Your task to perform on an android device: Clear all items from cart on amazon. Add beats solo 3 to the cart on amazon Image 0: 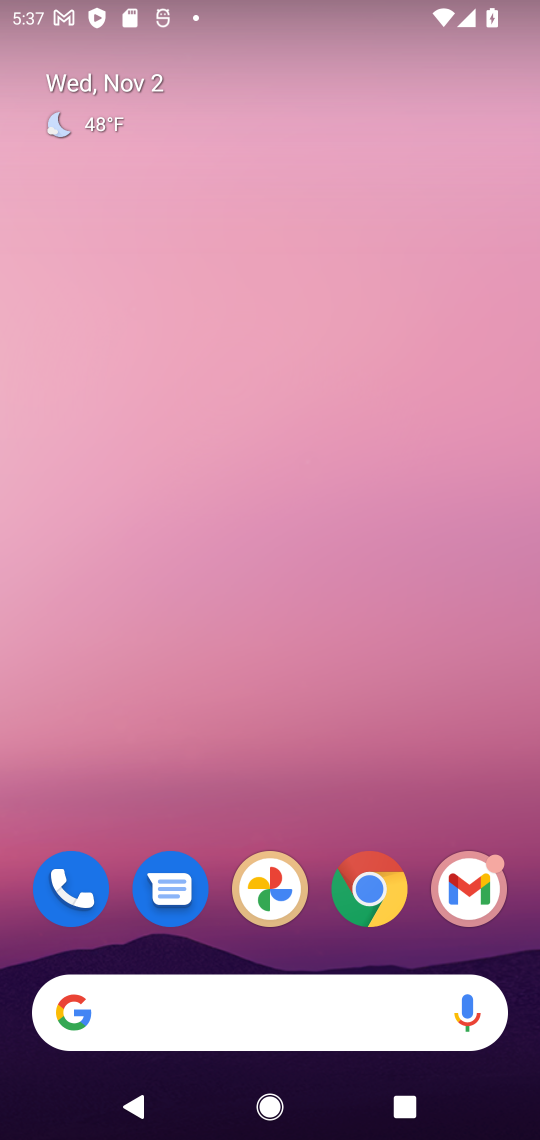
Step 0: click (371, 889)
Your task to perform on an android device: Clear all items from cart on amazon. Add beats solo 3 to the cart on amazon Image 1: 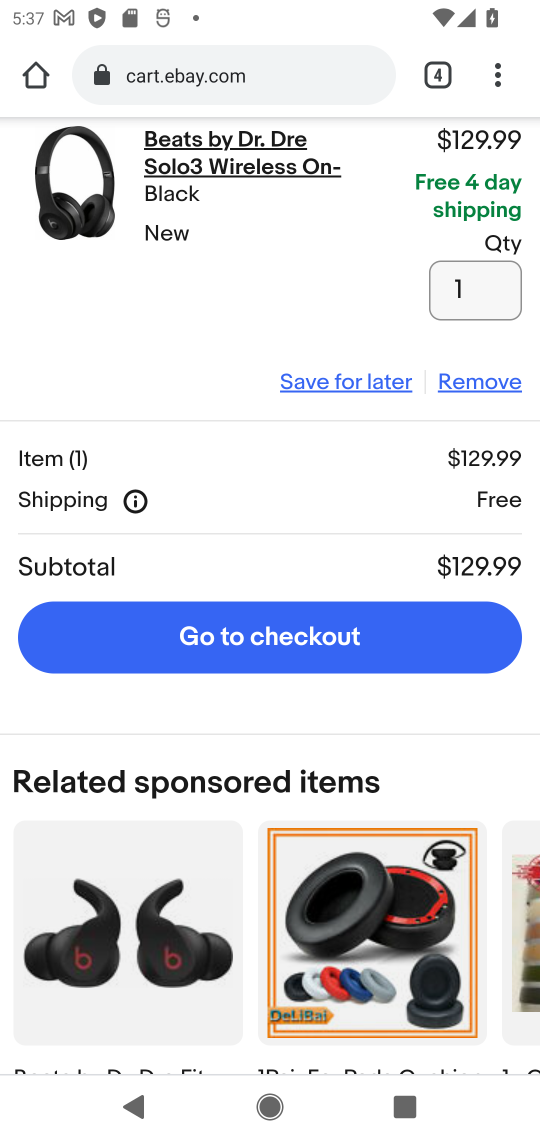
Step 1: click (354, 69)
Your task to perform on an android device: Clear all items from cart on amazon. Add beats solo 3 to the cart on amazon Image 2: 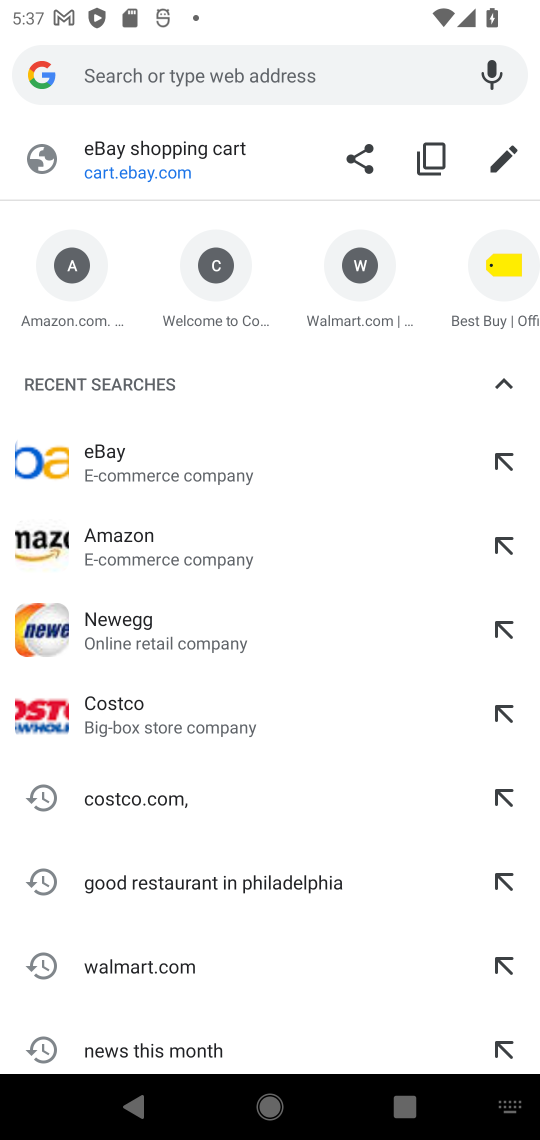
Step 2: click (125, 539)
Your task to perform on an android device: Clear all items from cart on amazon. Add beats solo 3 to the cart on amazon Image 3: 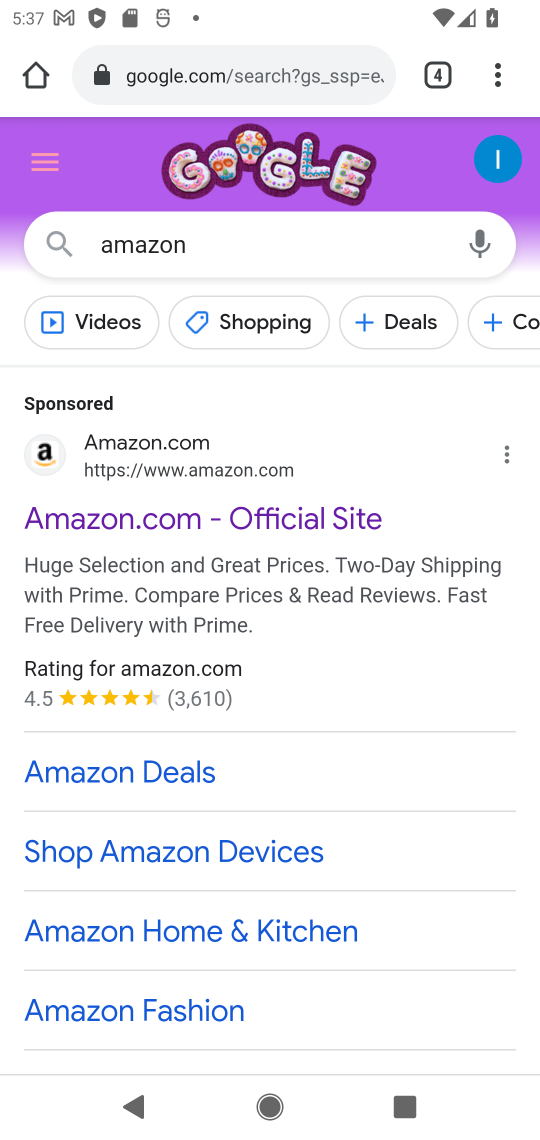
Step 3: click (197, 519)
Your task to perform on an android device: Clear all items from cart on amazon. Add beats solo 3 to the cart on amazon Image 4: 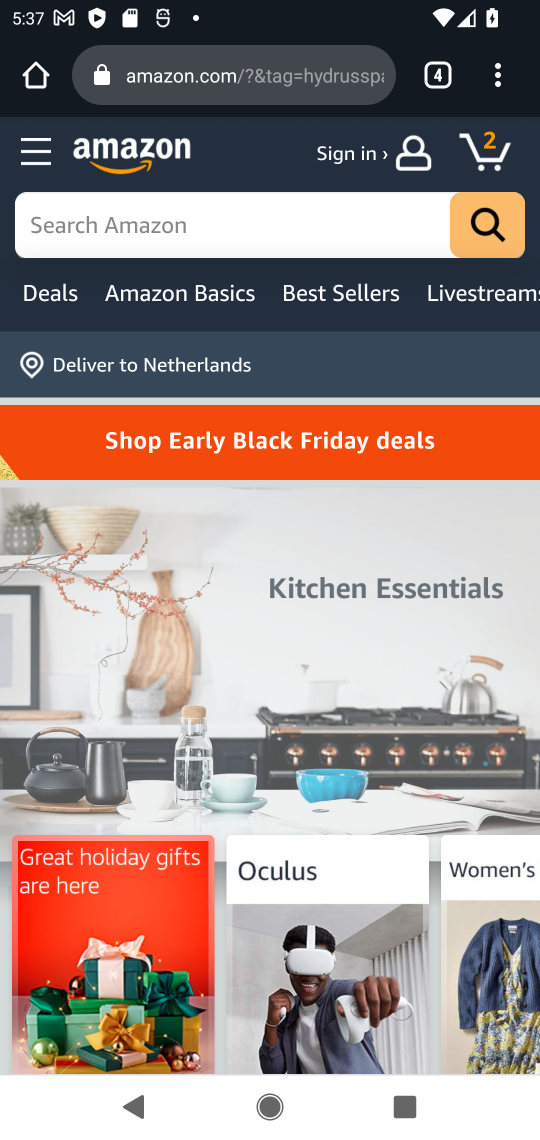
Step 4: click (511, 145)
Your task to perform on an android device: Clear all items from cart on amazon. Add beats solo 3 to the cart on amazon Image 5: 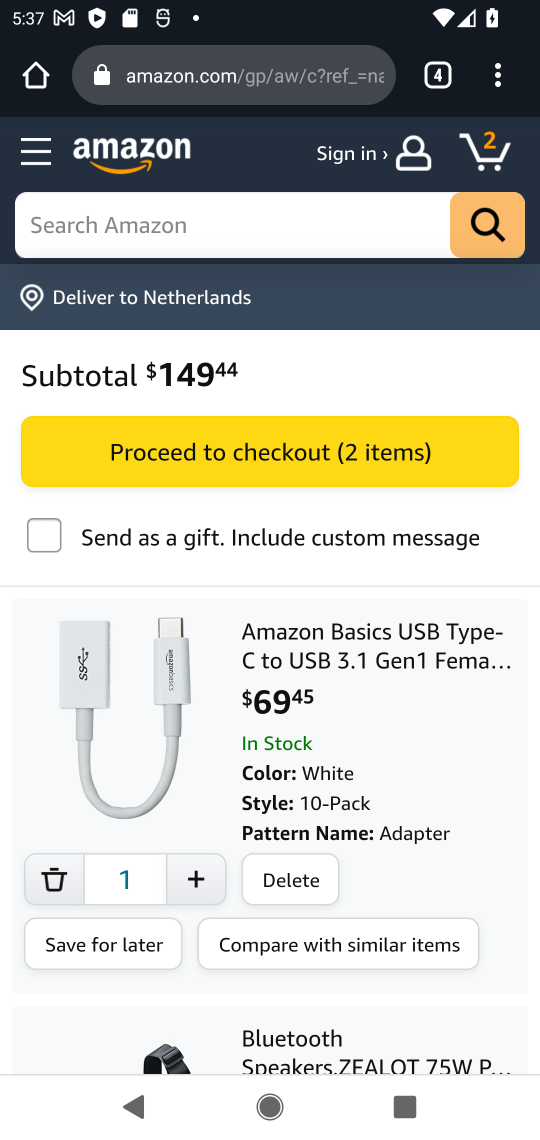
Step 5: drag from (226, 857) to (394, 485)
Your task to perform on an android device: Clear all items from cart on amazon. Add beats solo 3 to the cart on amazon Image 6: 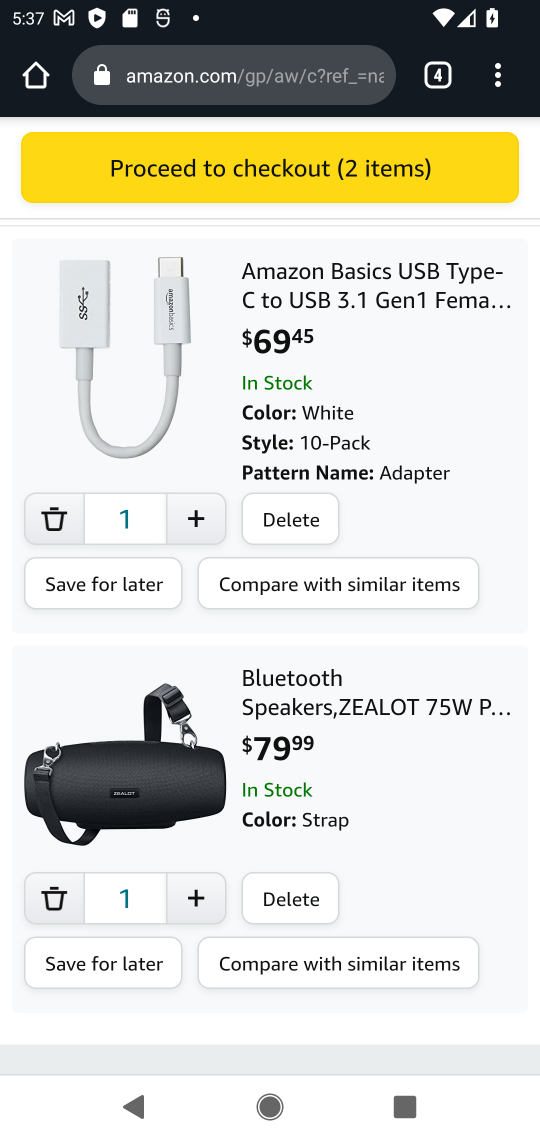
Step 6: click (299, 523)
Your task to perform on an android device: Clear all items from cart on amazon. Add beats solo 3 to the cart on amazon Image 7: 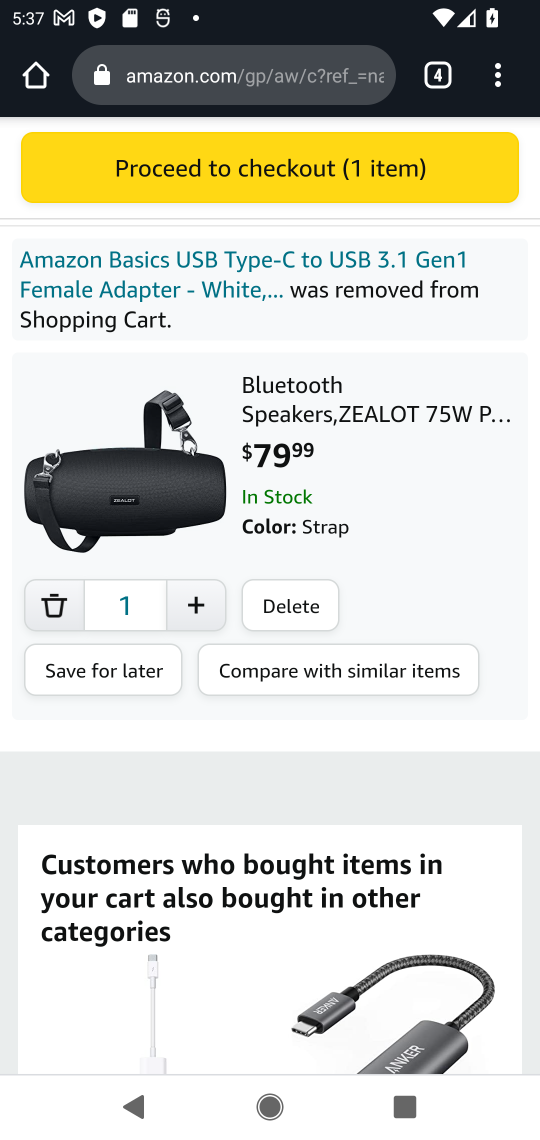
Step 7: click (297, 590)
Your task to perform on an android device: Clear all items from cart on amazon. Add beats solo 3 to the cart on amazon Image 8: 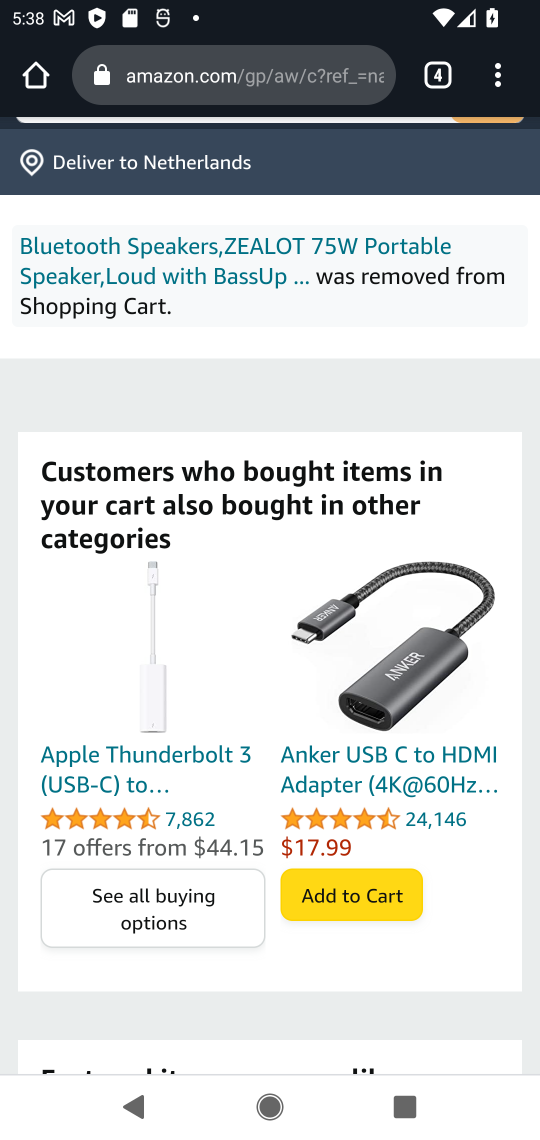
Step 8: drag from (431, 198) to (337, 555)
Your task to perform on an android device: Clear all items from cart on amazon. Add beats solo 3 to the cart on amazon Image 9: 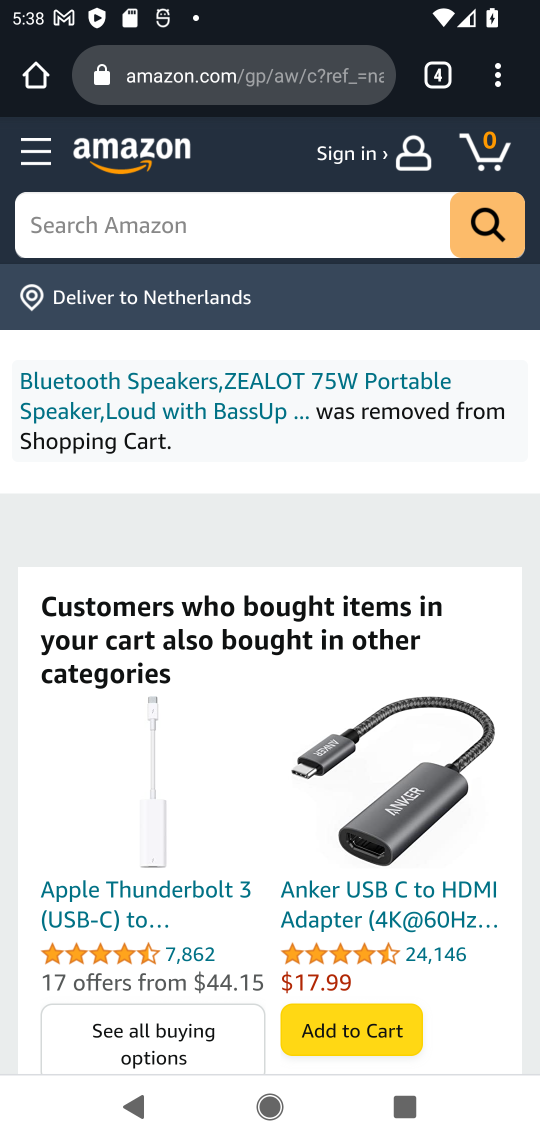
Step 9: click (316, 213)
Your task to perform on an android device: Clear all items from cart on amazon. Add beats solo 3 to the cart on amazon Image 10: 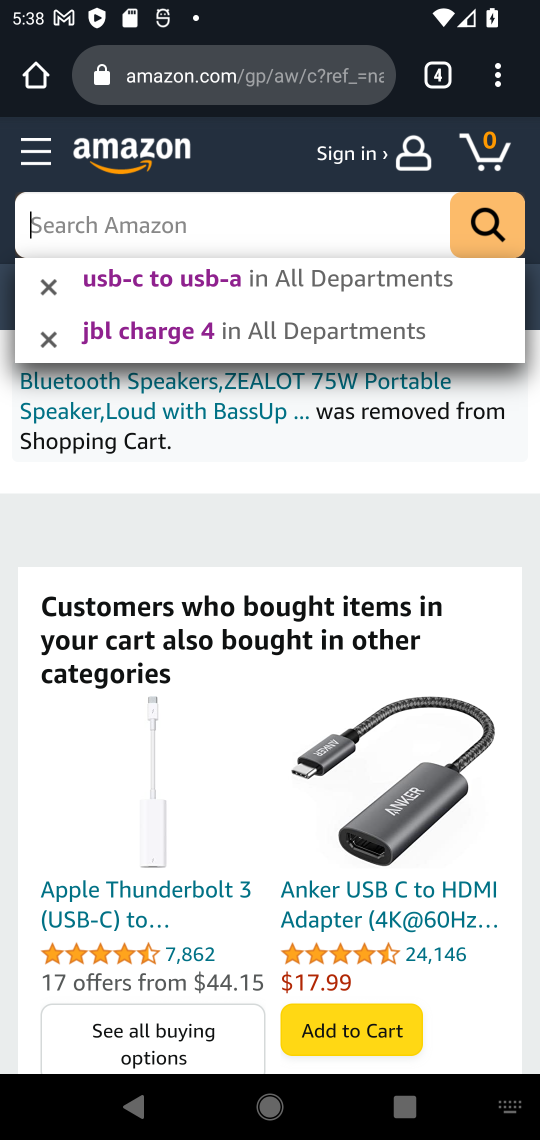
Step 10: type "beats solo 3"
Your task to perform on an android device: Clear all items from cart on amazon. Add beats solo 3 to the cart on amazon Image 11: 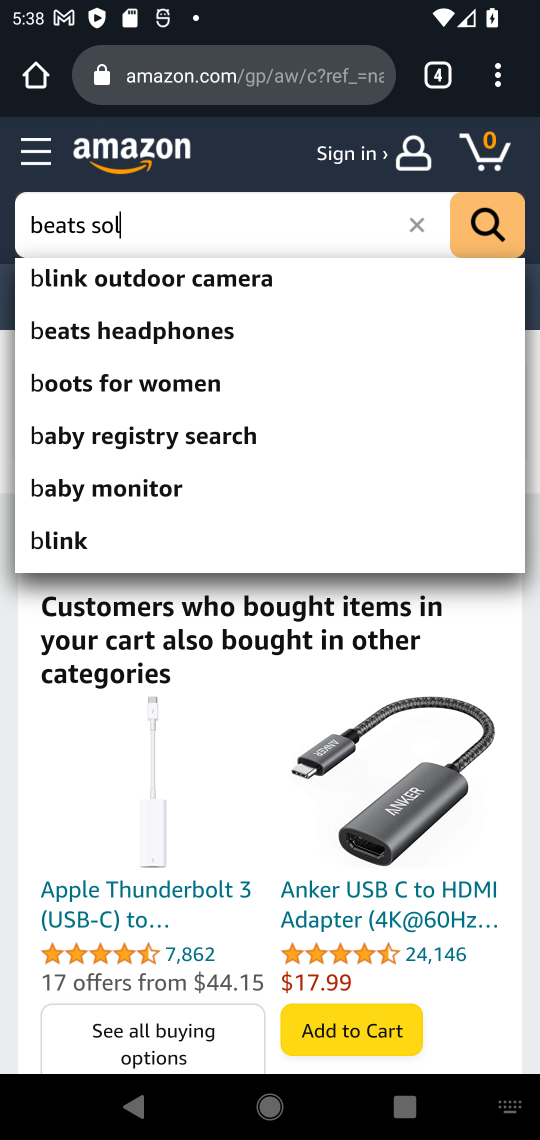
Step 11: press enter
Your task to perform on an android device: Clear all items from cart on amazon. Add beats solo 3 to the cart on amazon Image 12: 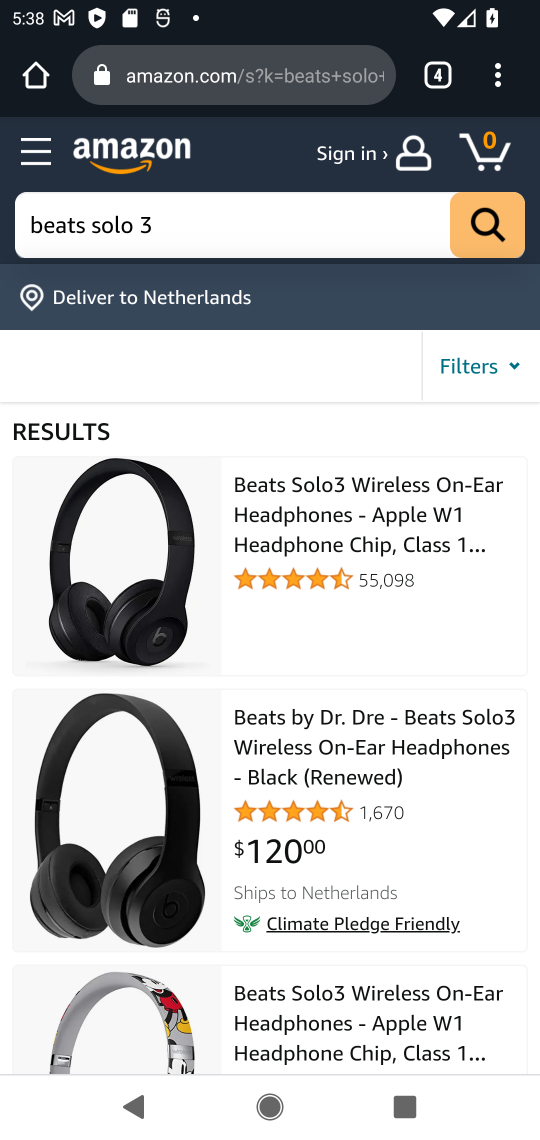
Step 12: click (336, 496)
Your task to perform on an android device: Clear all items from cart on amazon. Add beats solo 3 to the cart on amazon Image 13: 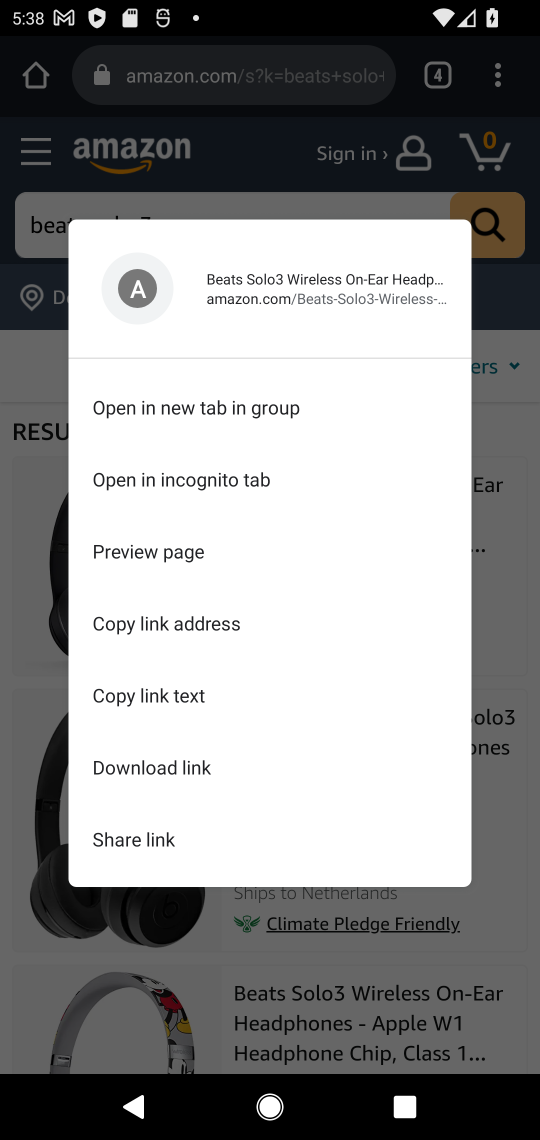
Step 13: click (512, 506)
Your task to perform on an android device: Clear all items from cart on amazon. Add beats solo 3 to the cart on amazon Image 14: 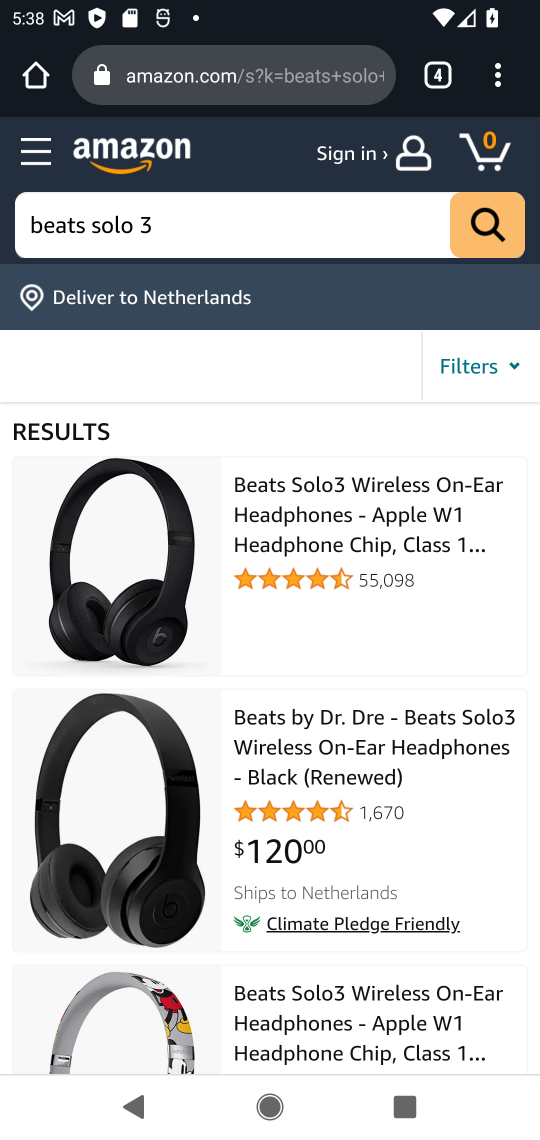
Step 14: click (154, 547)
Your task to perform on an android device: Clear all items from cart on amazon. Add beats solo 3 to the cart on amazon Image 15: 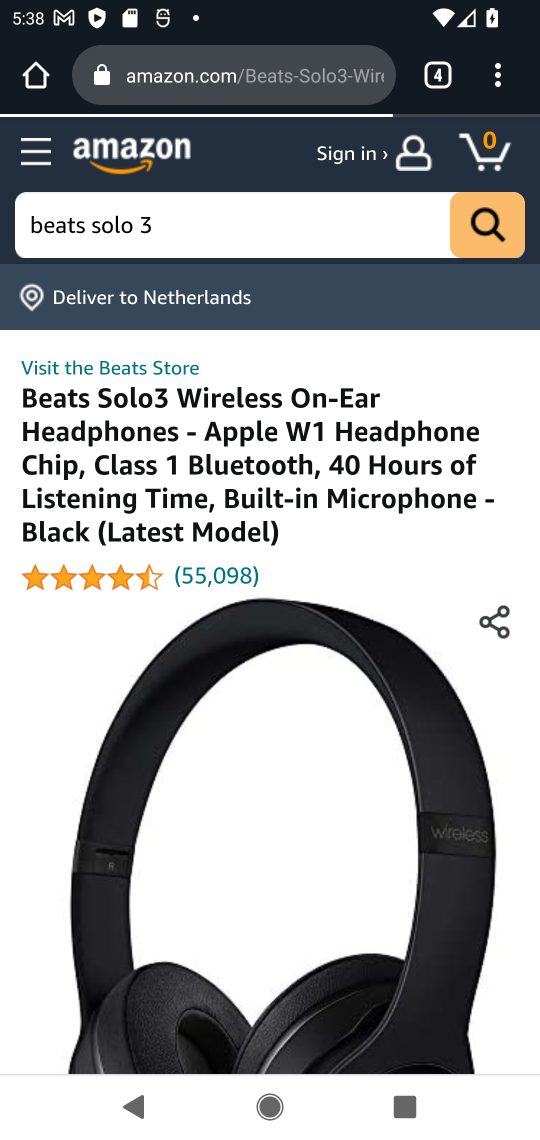
Step 15: drag from (267, 816) to (533, 347)
Your task to perform on an android device: Clear all items from cart on amazon. Add beats solo 3 to the cart on amazon Image 16: 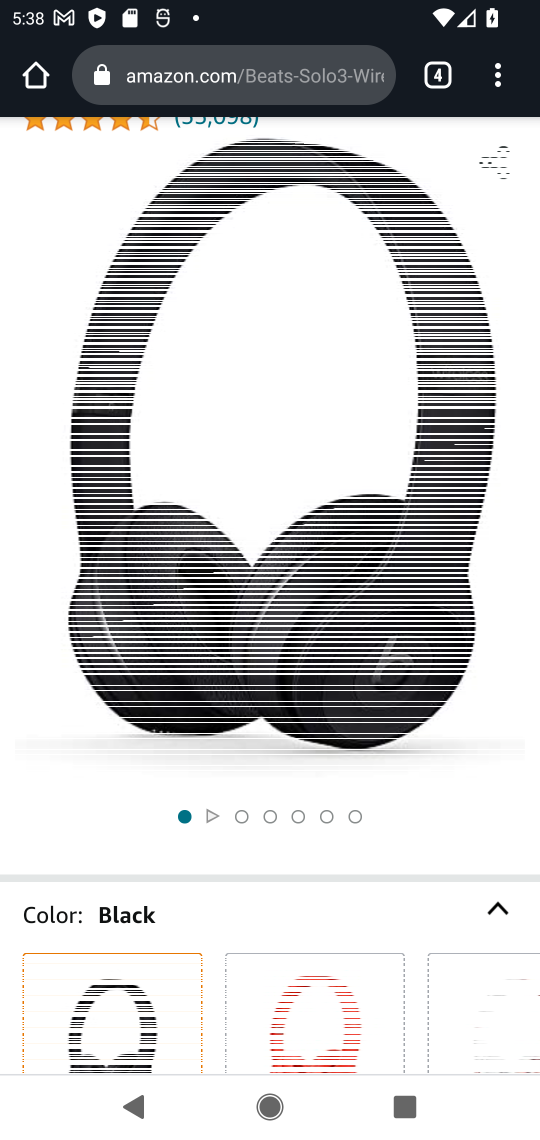
Step 16: drag from (288, 840) to (538, 285)
Your task to perform on an android device: Clear all items from cart on amazon. Add beats solo 3 to the cart on amazon Image 17: 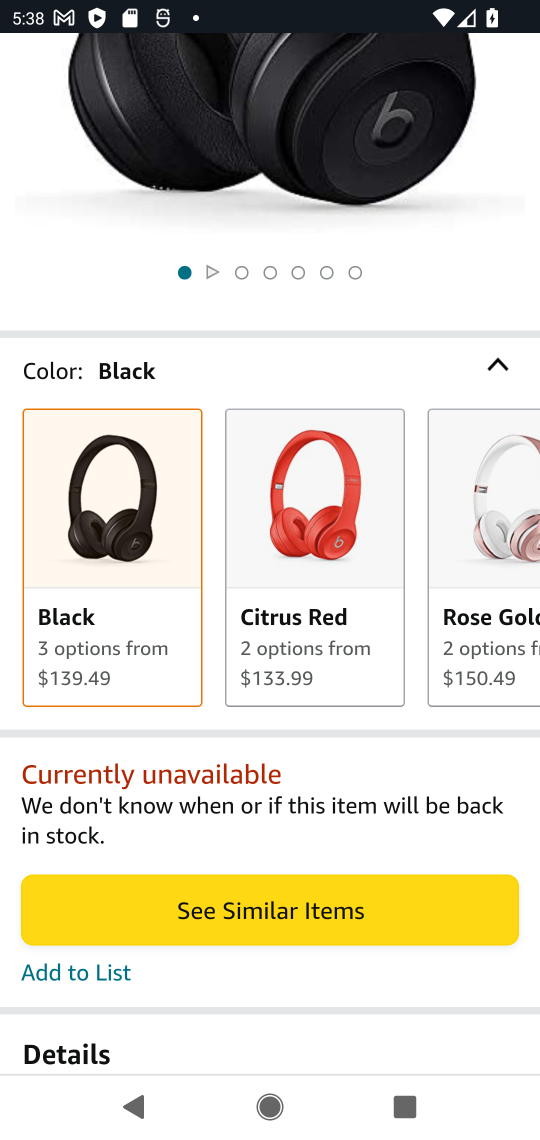
Step 17: drag from (180, 843) to (385, 326)
Your task to perform on an android device: Clear all items from cart on amazon. Add beats solo 3 to the cart on amazon Image 18: 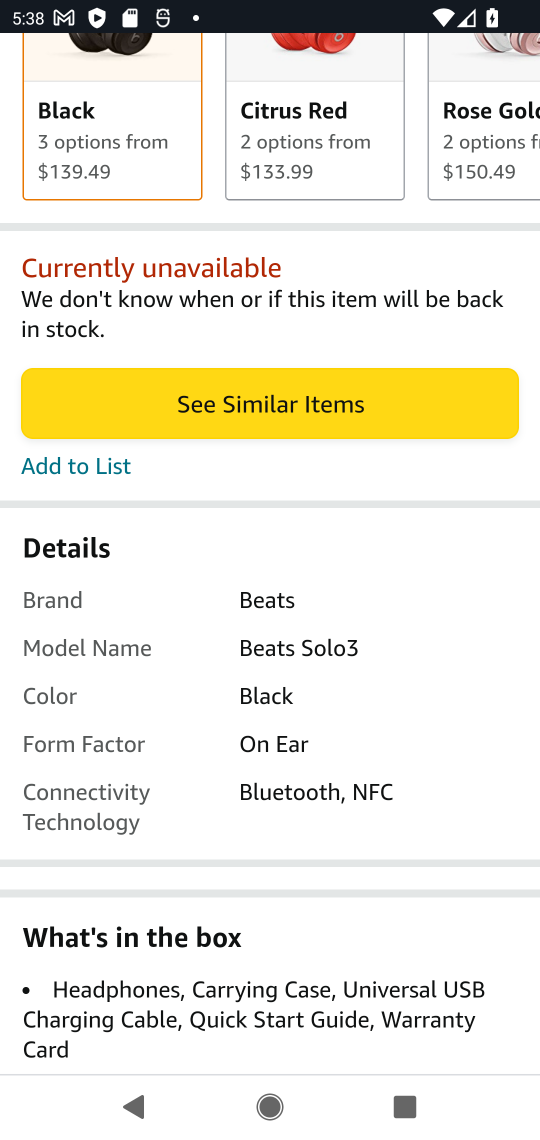
Step 18: drag from (258, 964) to (473, 396)
Your task to perform on an android device: Clear all items from cart on amazon. Add beats solo 3 to the cart on amazon Image 19: 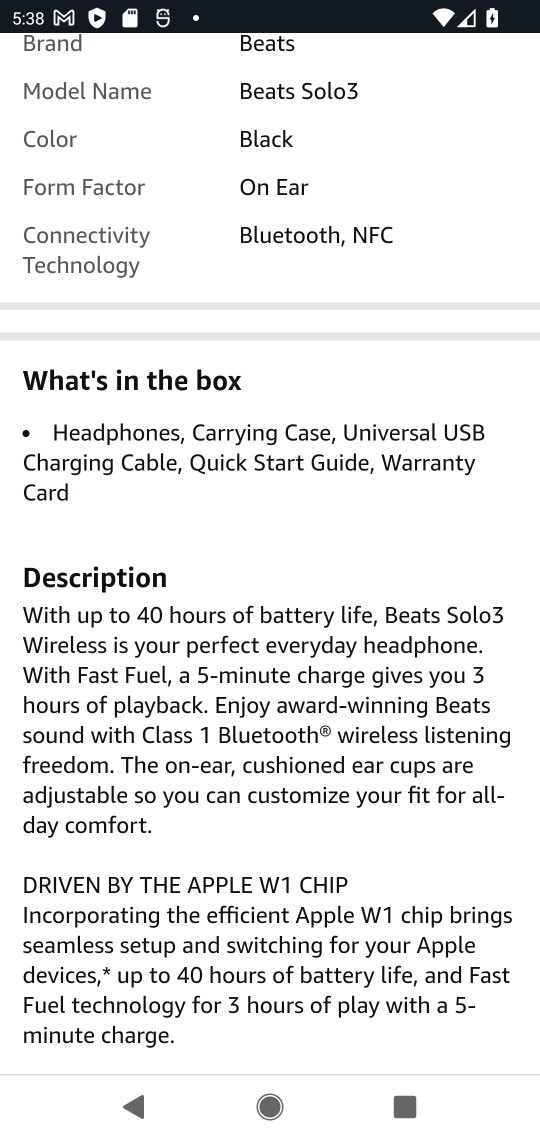
Step 19: drag from (187, 866) to (529, 143)
Your task to perform on an android device: Clear all items from cart on amazon. Add beats solo 3 to the cart on amazon Image 20: 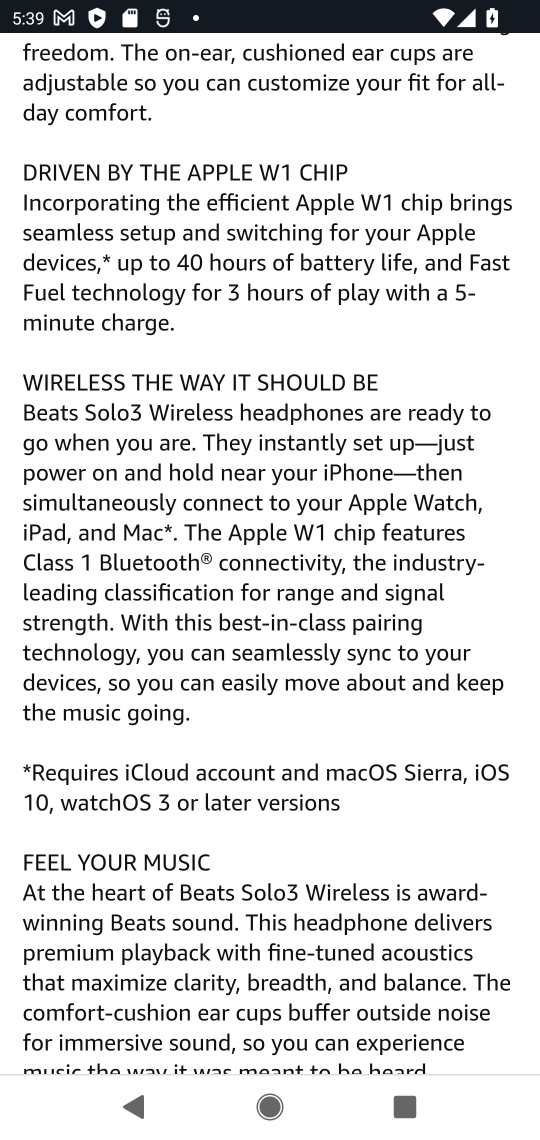
Step 20: drag from (423, 410) to (533, 152)
Your task to perform on an android device: Clear all items from cart on amazon. Add beats solo 3 to the cart on amazon Image 21: 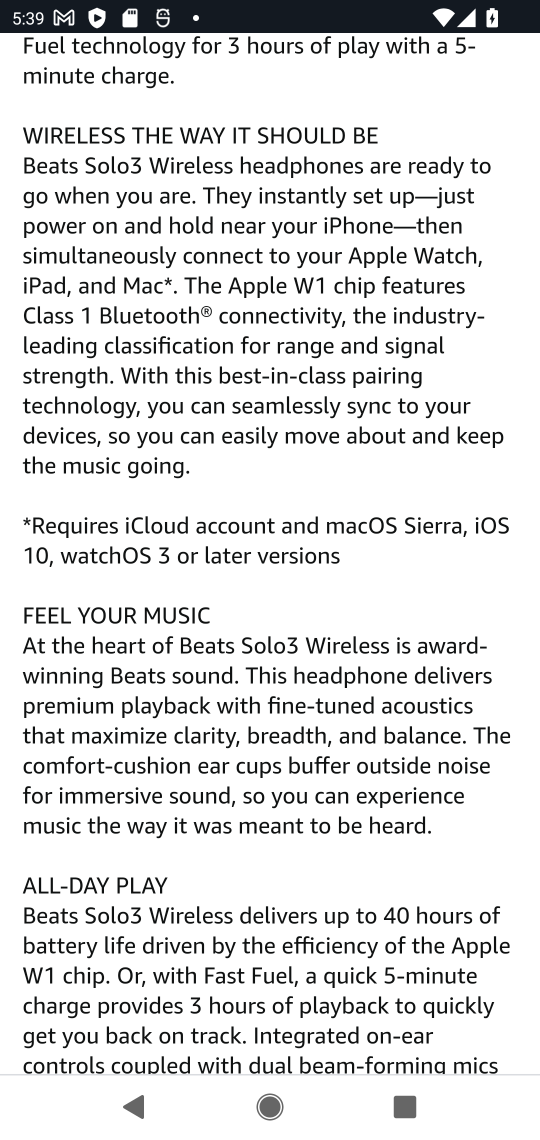
Step 21: drag from (426, 159) to (170, 979)
Your task to perform on an android device: Clear all items from cart on amazon. Add beats solo 3 to the cart on amazon Image 22: 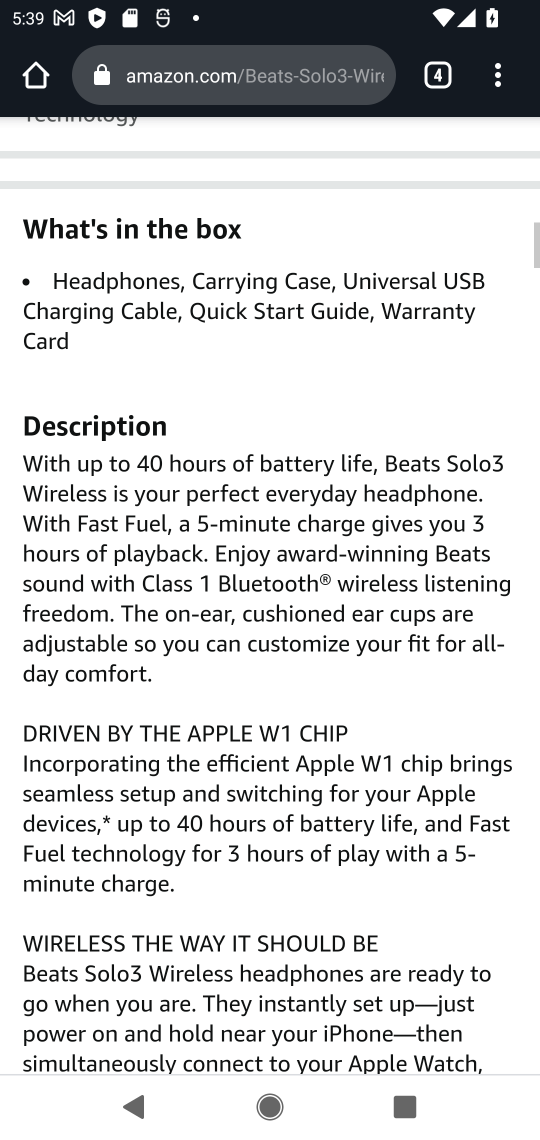
Step 22: drag from (317, 303) to (98, 931)
Your task to perform on an android device: Clear all items from cart on amazon. Add beats solo 3 to the cart on amazon Image 23: 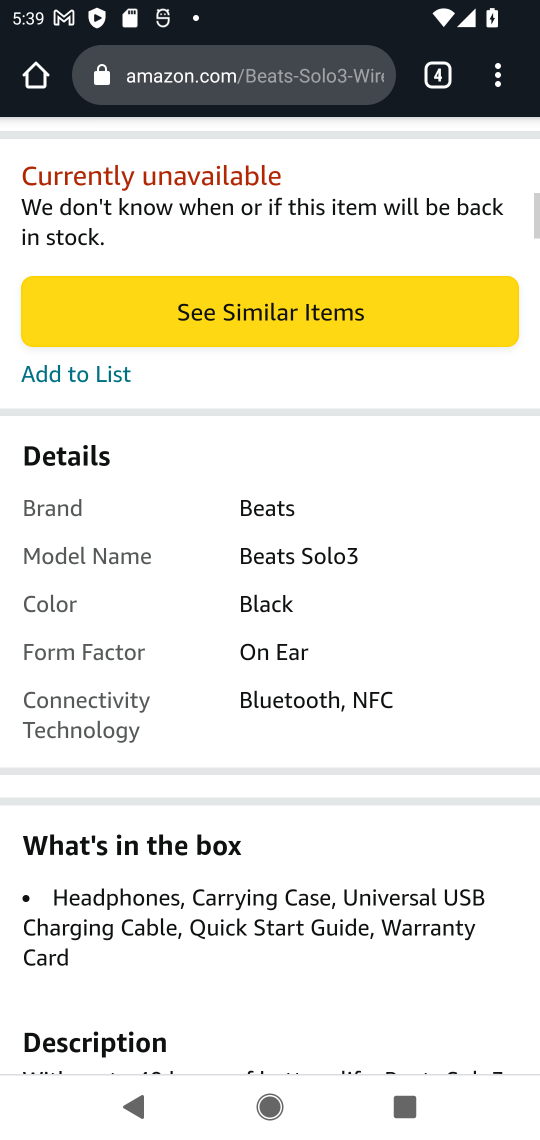
Step 23: drag from (349, 315) to (221, 767)
Your task to perform on an android device: Clear all items from cart on amazon. Add beats solo 3 to the cart on amazon Image 24: 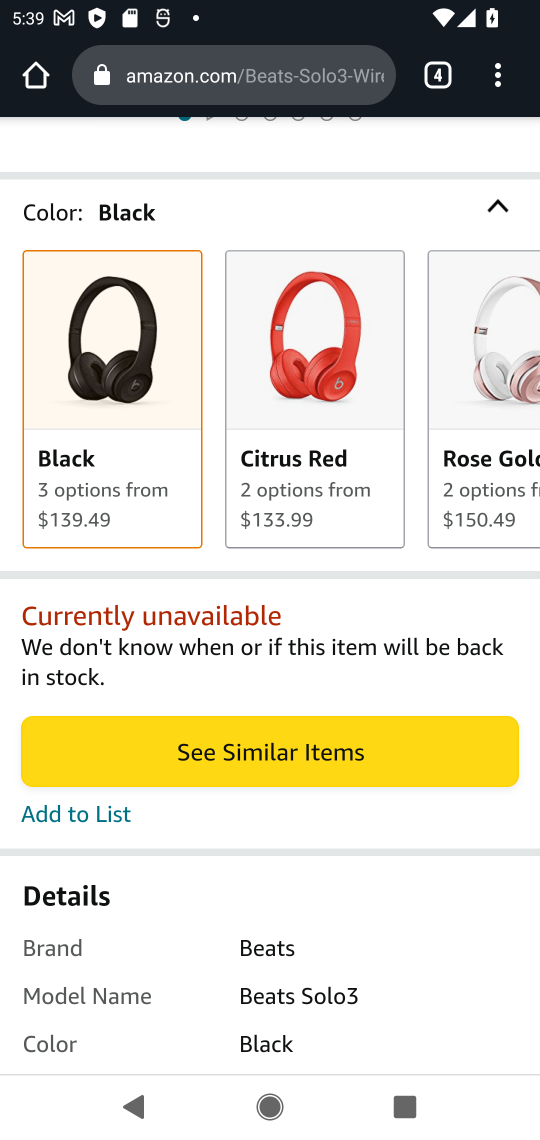
Step 24: drag from (340, 233) to (0, 1127)
Your task to perform on an android device: Clear all items from cart on amazon. Add beats solo 3 to the cart on amazon Image 25: 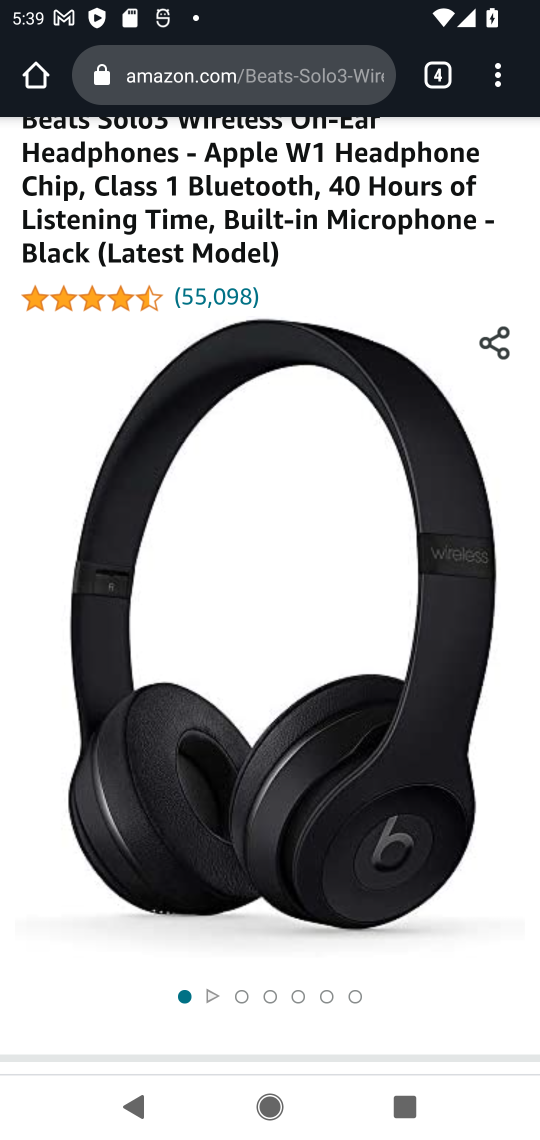
Step 25: press back button
Your task to perform on an android device: Clear all items from cart on amazon. Add beats solo 3 to the cart on amazon Image 26: 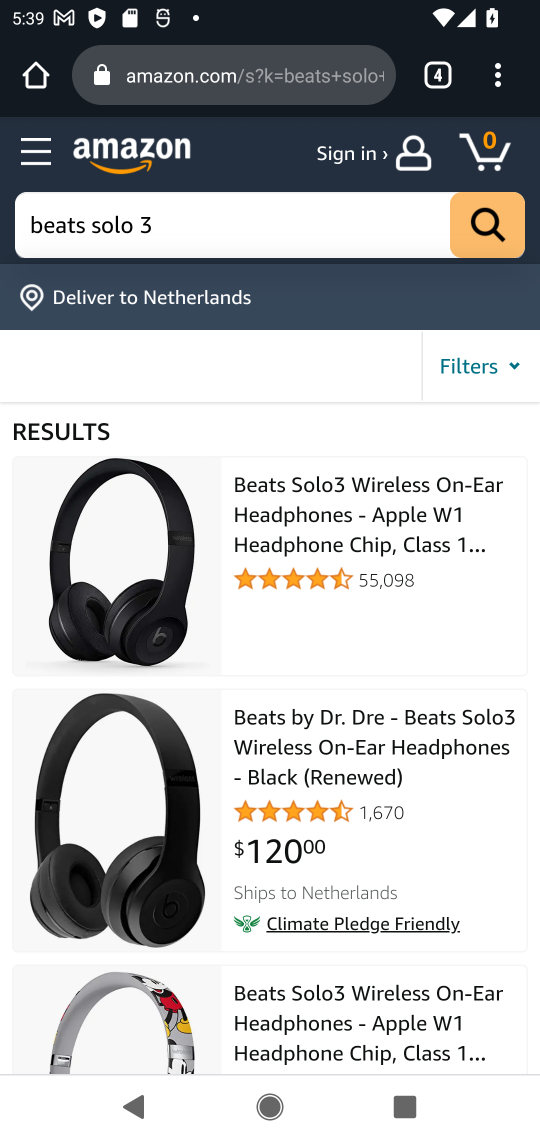
Step 26: click (312, 787)
Your task to perform on an android device: Clear all items from cart on amazon. Add beats solo 3 to the cart on amazon Image 27: 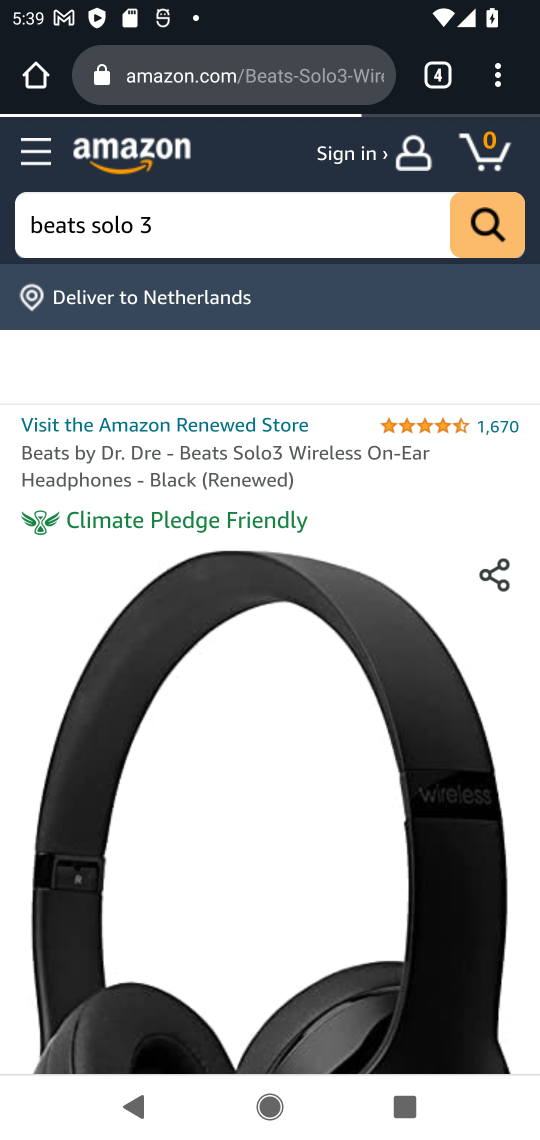
Step 27: drag from (239, 904) to (458, 328)
Your task to perform on an android device: Clear all items from cart on amazon. Add beats solo 3 to the cart on amazon Image 28: 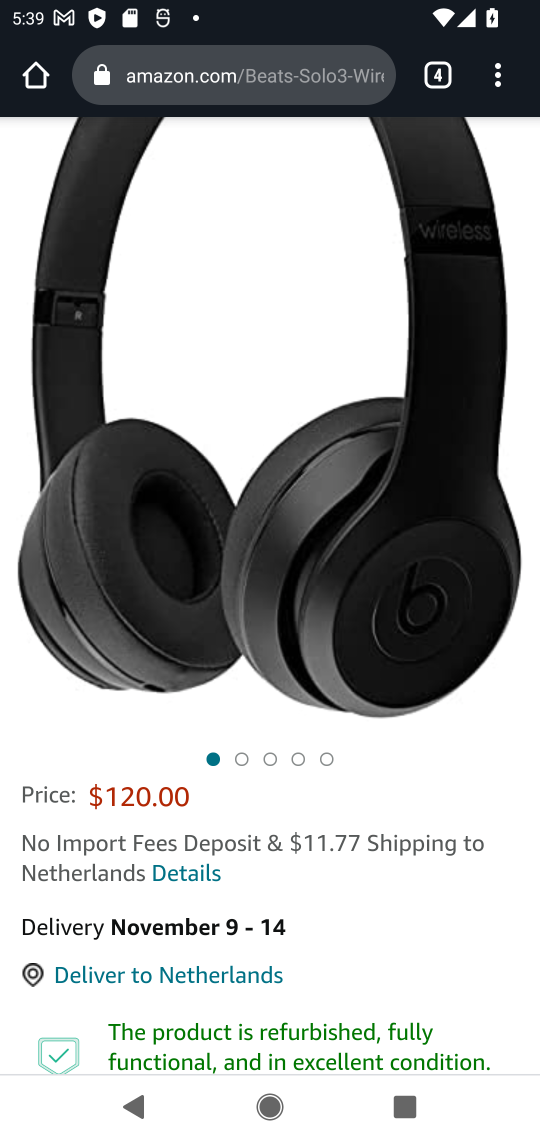
Step 28: drag from (298, 986) to (486, 458)
Your task to perform on an android device: Clear all items from cart on amazon. Add beats solo 3 to the cart on amazon Image 29: 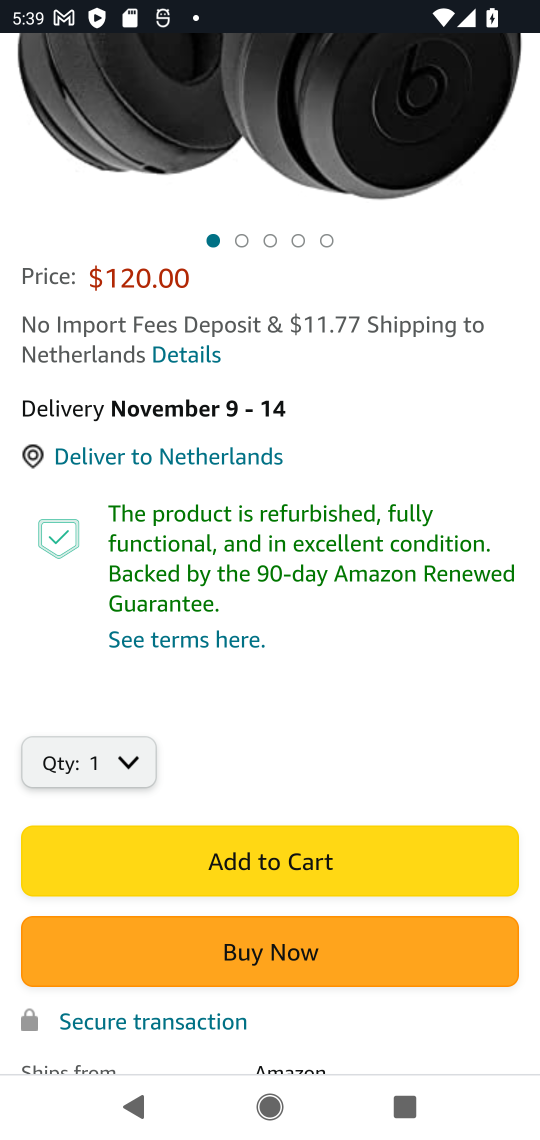
Step 29: click (283, 853)
Your task to perform on an android device: Clear all items from cart on amazon. Add beats solo 3 to the cart on amazon Image 30: 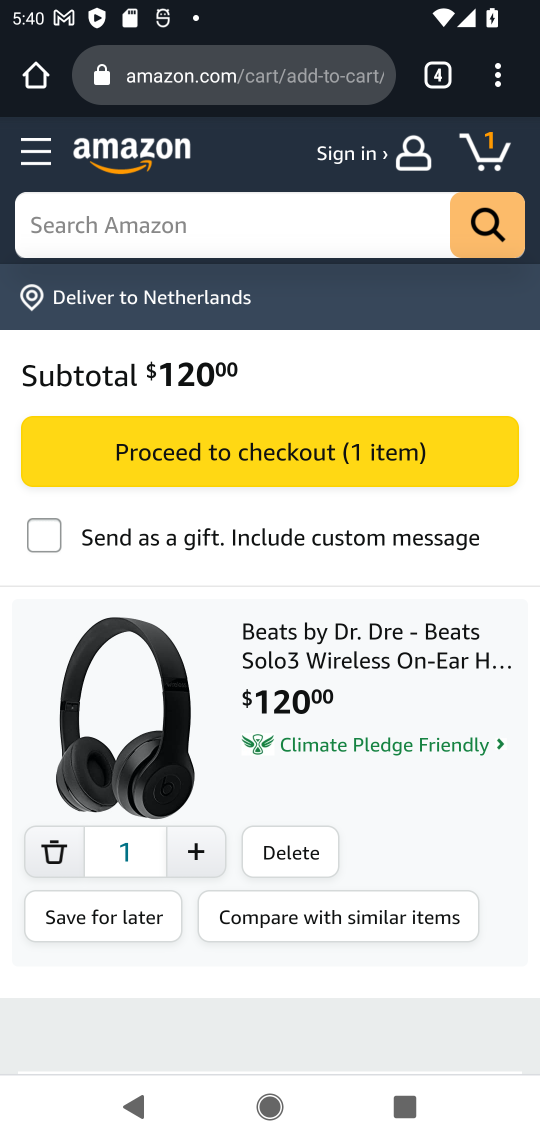
Step 30: task complete